Your task to perform on an android device: open app "LiveIn - Share Your Moment" (install if not already installed) Image 0: 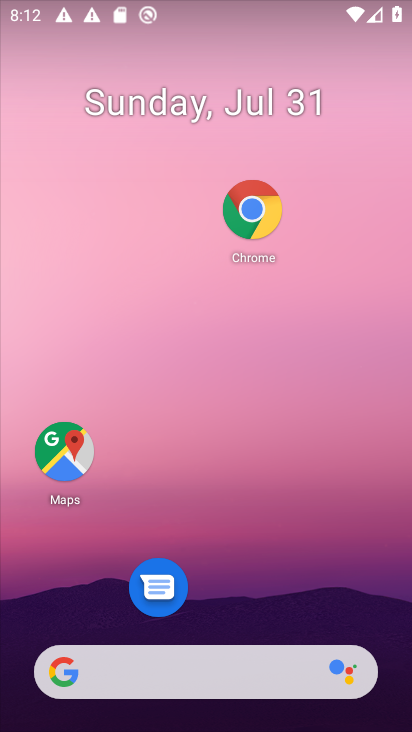
Step 0: drag from (239, 629) to (180, 171)
Your task to perform on an android device: open app "LiveIn - Share Your Moment" (install if not already installed) Image 1: 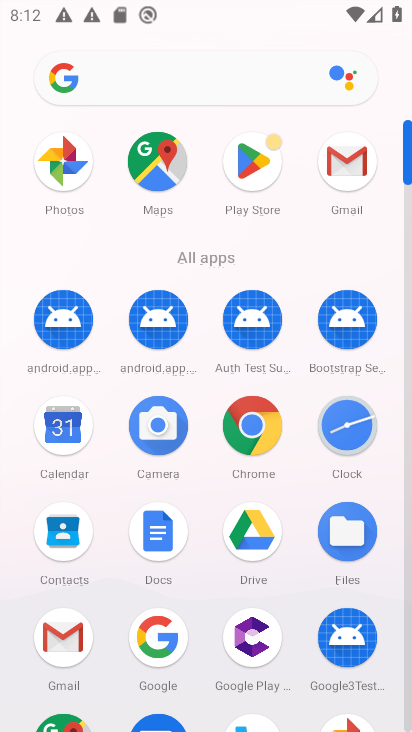
Step 1: drag from (275, 568) to (241, 238)
Your task to perform on an android device: open app "LiveIn - Share Your Moment" (install if not already installed) Image 2: 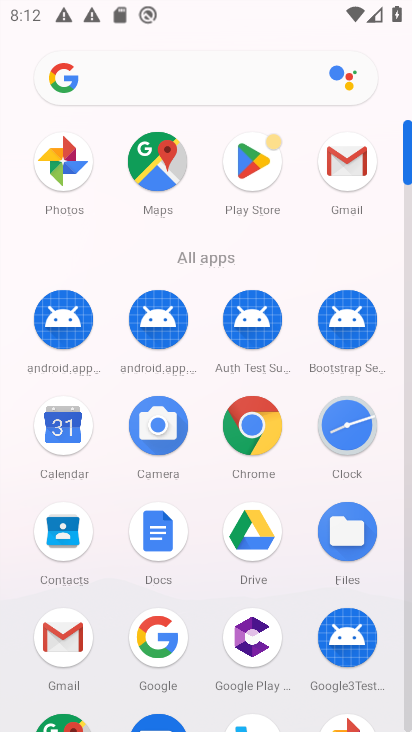
Step 2: click (263, 160)
Your task to perform on an android device: open app "LiveIn - Share Your Moment" (install if not already installed) Image 3: 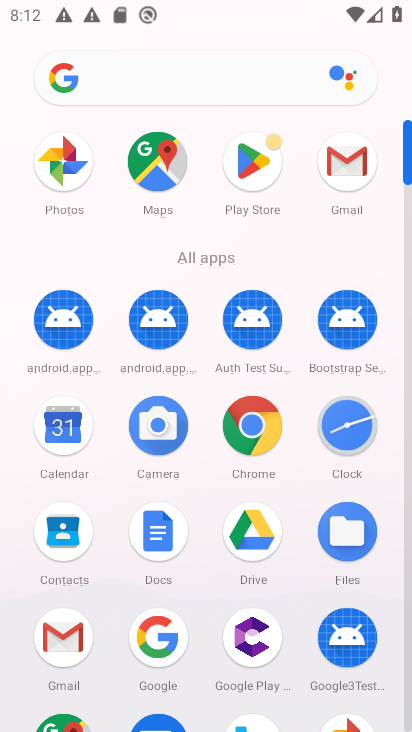
Step 3: click (263, 166)
Your task to perform on an android device: open app "LiveIn - Share Your Moment" (install if not already installed) Image 4: 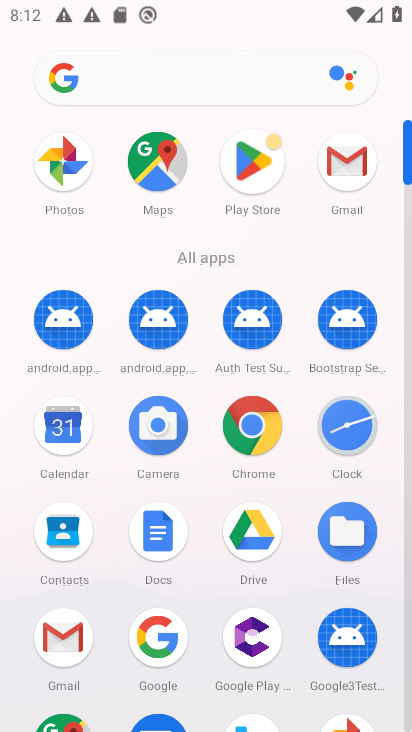
Step 4: click (263, 167)
Your task to perform on an android device: open app "LiveIn - Share Your Moment" (install if not already installed) Image 5: 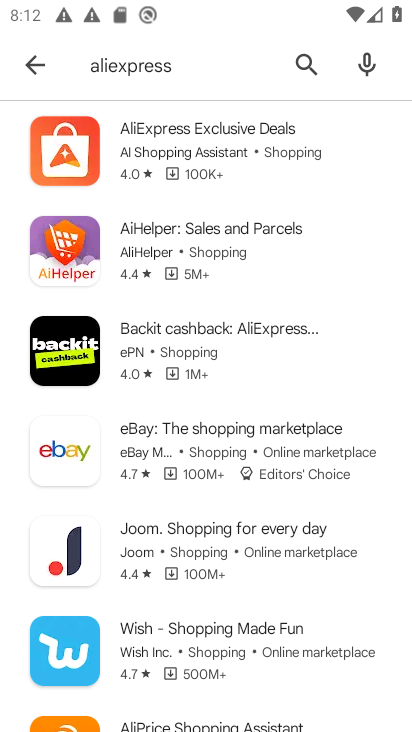
Step 5: click (33, 63)
Your task to perform on an android device: open app "LiveIn - Share Your Moment" (install if not already installed) Image 6: 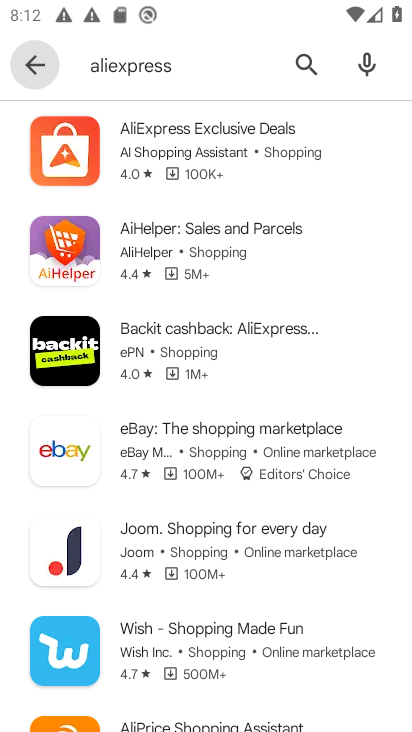
Step 6: click (33, 62)
Your task to perform on an android device: open app "LiveIn - Share Your Moment" (install if not already installed) Image 7: 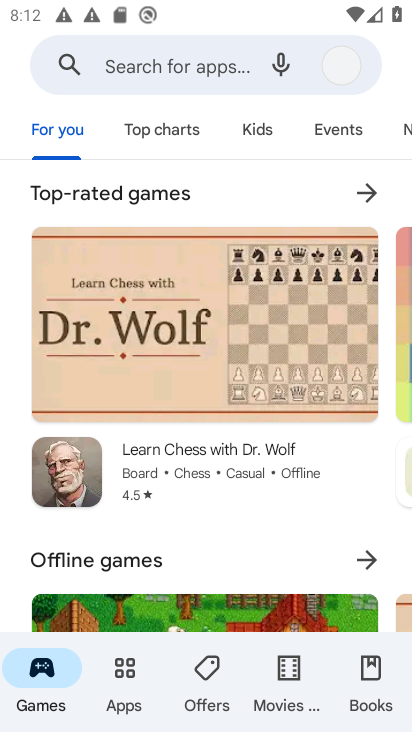
Step 7: click (33, 63)
Your task to perform on an android device: open app "LiveIn - Share Your Moment" (install if not already installed) Image 8: 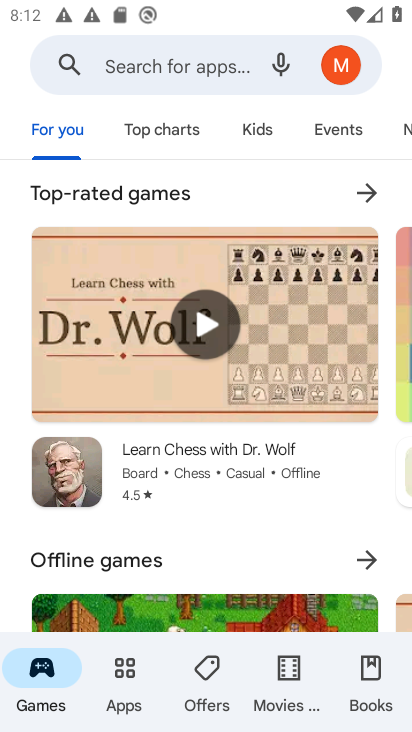
Step 8: click (114, 62)
Your task to perform on an android device: open app "LiveIn - Share Your Moment" (install if not already installed) Image 9: 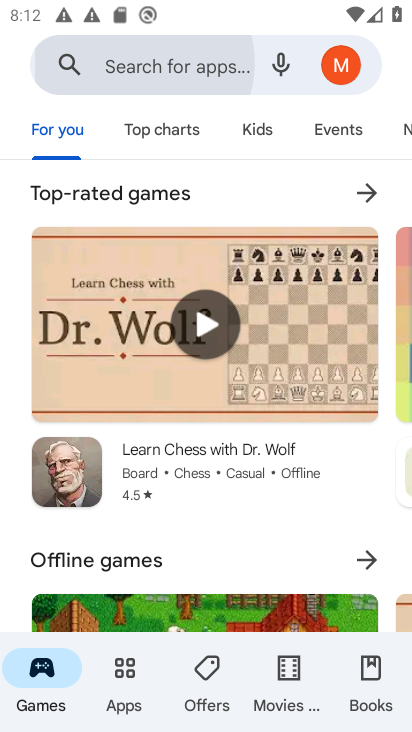
Step 9: click (114, 62)
Your task to perform on an android device: open app "LiveIn - Share Your Moment" (install if not already installed) Image 10: 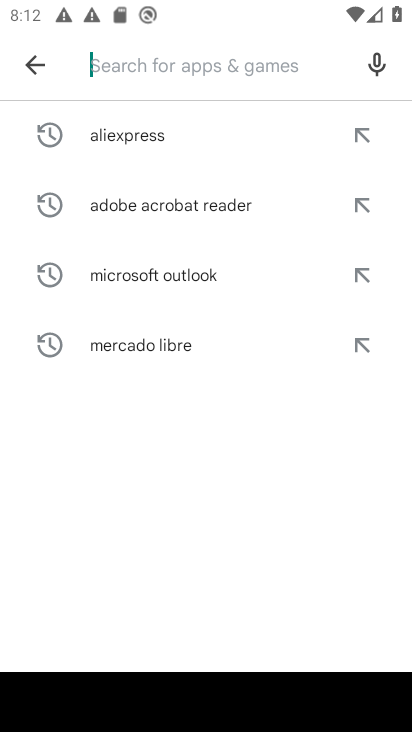
Step 10: click (117, 63)
Your task to perform on an android device: open app "LiveIn - Share Your Moment" (install if not already installed) Image 11: 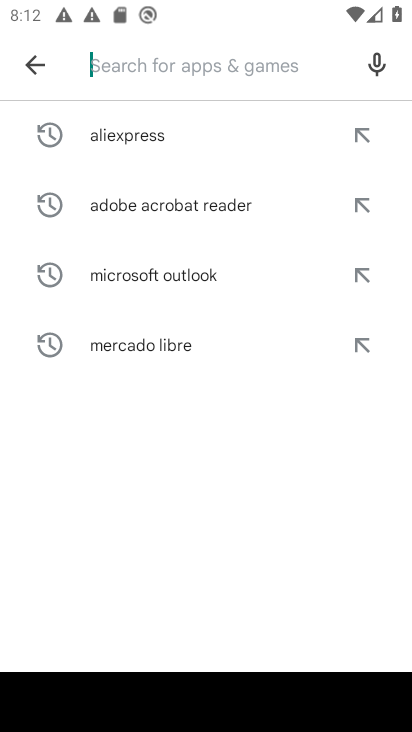
Step 11: type "livein - share your moment "
Your task to perform on an android device: open app "LiveIn - Share Your Moment" (install if not already installed) Image 12: 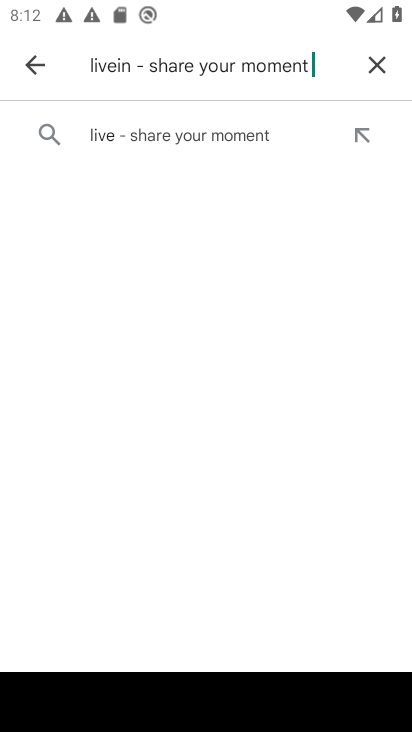
Step 12: click (225, 142)
Your task to perform on an android device: open app "LiveIn - Share Your Moment" (install if not already installed) Image 13: 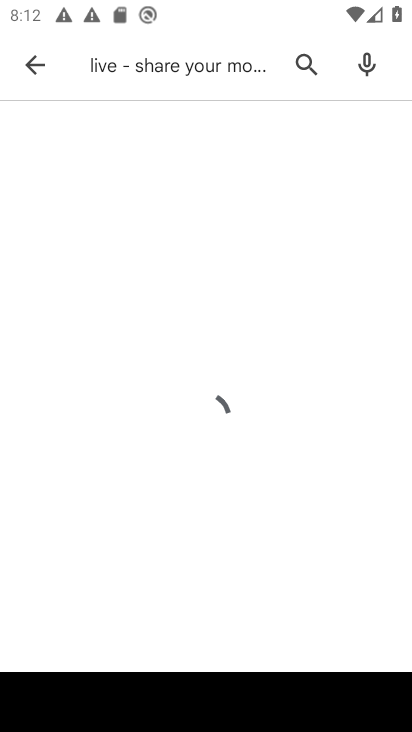
Step 13: click (202, 142)
Your task to perform on an android device: open app "LiveIn - Share Your Moment" (install if not already installed) Image 14: 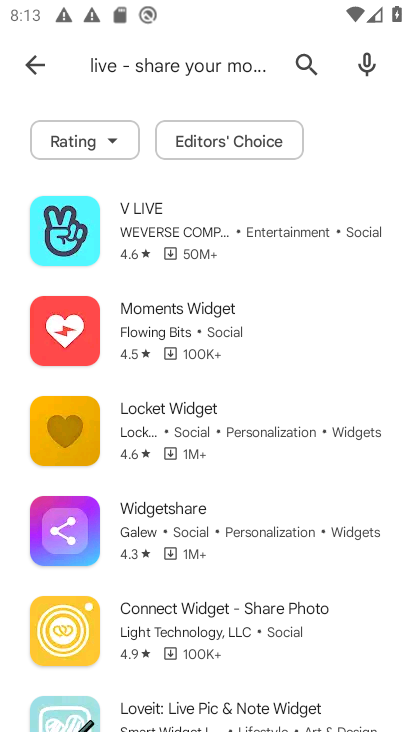
Step 14: drag from (159, 512) to (124, 200)
Your task to perform on an android device: open app "LiveIn - Share Your Moment" (install if not already installed) Image 15: 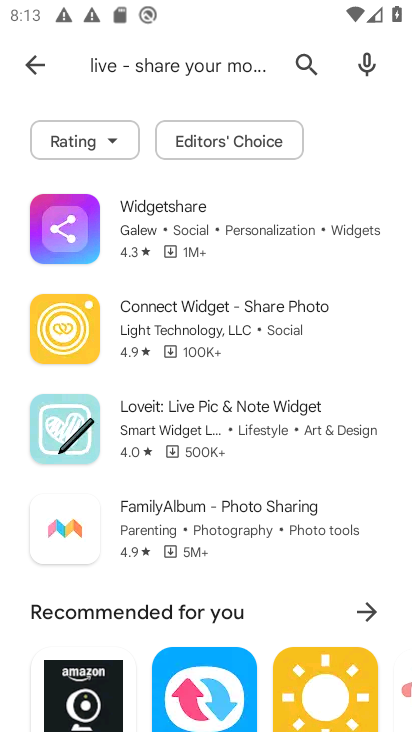
Step 15: drag from (170, 628) to (196, 235)
Your task to perform on an android device: open app "LiveIn - Share Your Moment" (install if not already installed) Image 16: 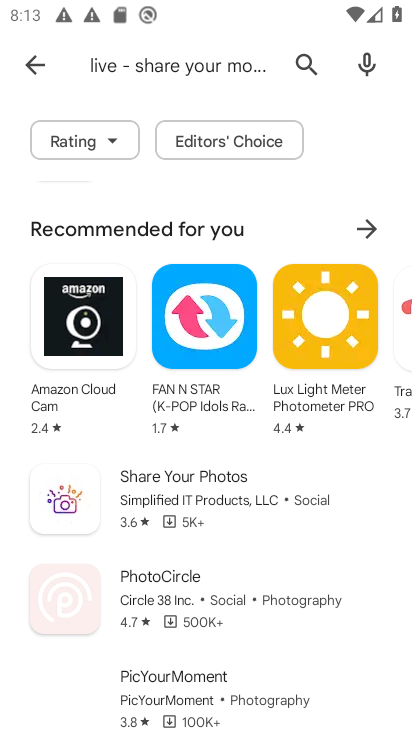
Step 16: drag from (208, 623) to (210, 264)
Your task to perform on an android device: open app "LiveIn - Share Your Moment" (install if not already installed) Image 17: 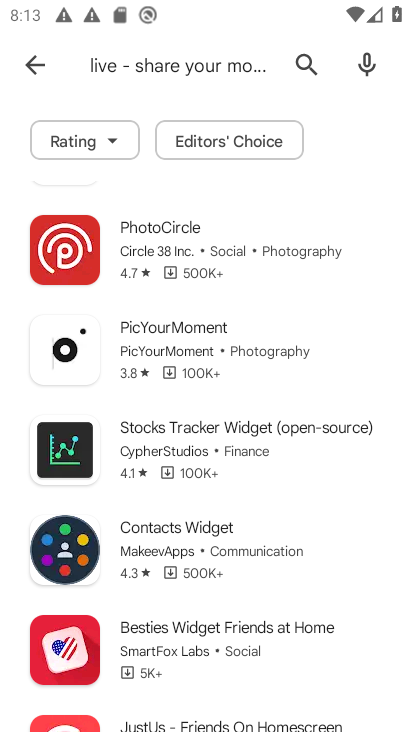
Step 17: drag from (208, 645) to (226, 725)
Your task to perform on an android device: open app "LiveIn - Share Your Moment" (install if not already installed) Image 18: 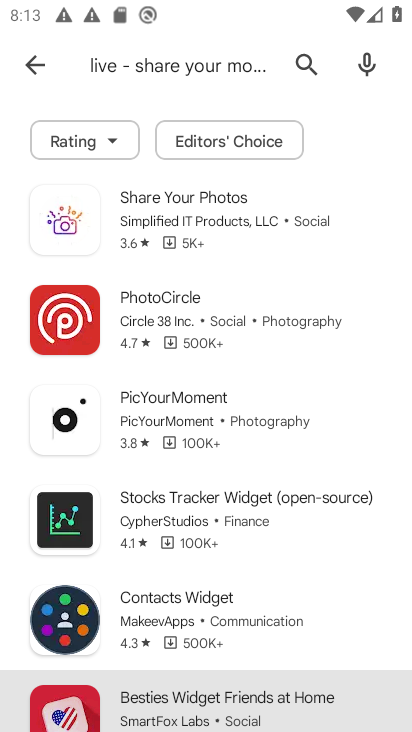
Step 18: drag from (181, 272) to (231, 608)
Your task to perform on an android device: open app "LiveIn - Share Your Moment" (install if not already installed) Image 19: 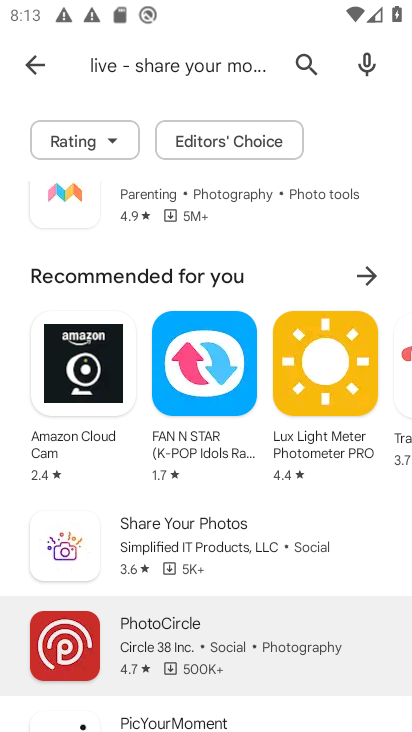
Step 19: drag from (196, 369) to (247, 687)
Your task to perform on an android device: open app "LiveIn - Share Your Moment" (install if not already installed) Image 20: 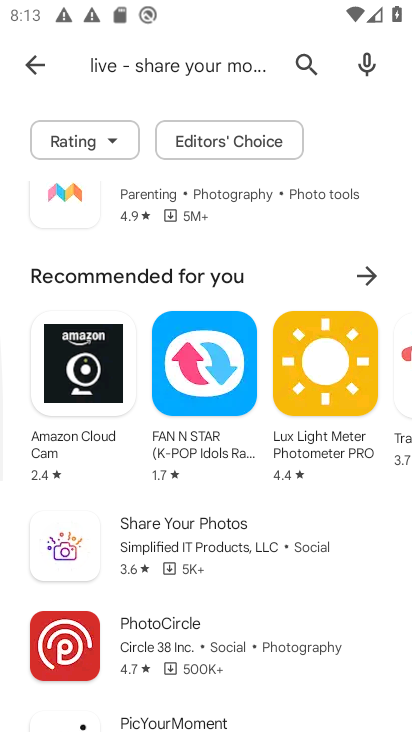
Step 20: drag from (186, 324) to (206, 683)
Your task to perform on an android device: open app "LiveIn - Share Your Moment" (install if not already installed) Image 21: 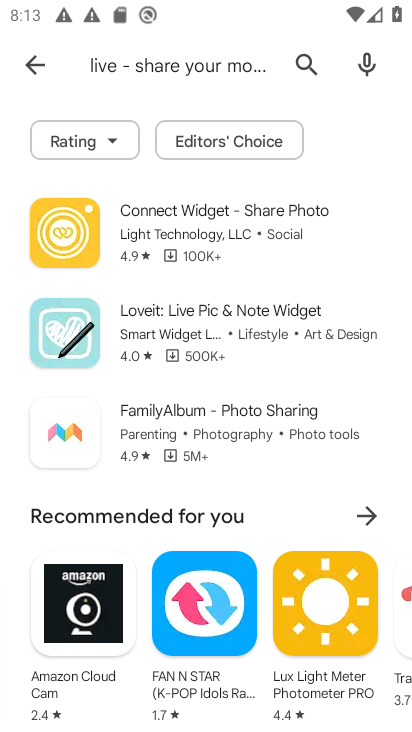
Step 21: drag from (163, 305) to (189, 627)
Your task to perform on an android device: open app "LiveIn - Share Your Moment" (install if not already installed) Image 22: 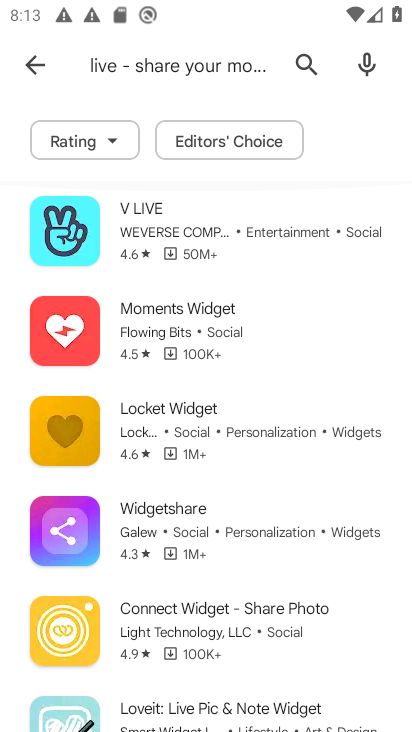
Step 22: click (163, 681)
Your task to perform on an android device: open app "LiveIn - Share Your Moment" (install if not already installed) Image 23: 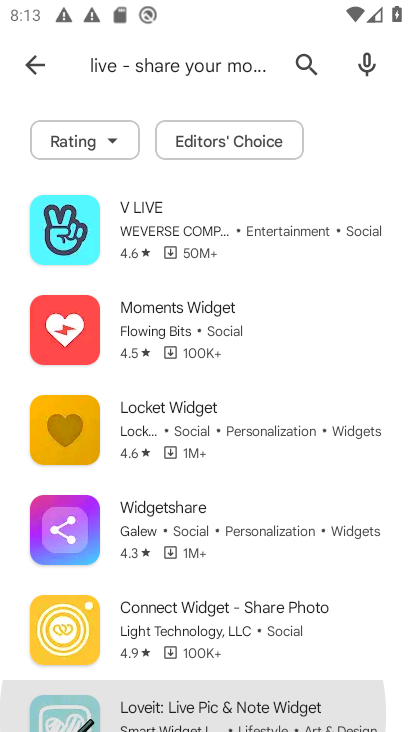
Step 23: drag from (176, 585) to (147, 649)
Your task to perform on an android device: open app "LiveIn - Share Your Moment" (install if not already installed) Image 24: 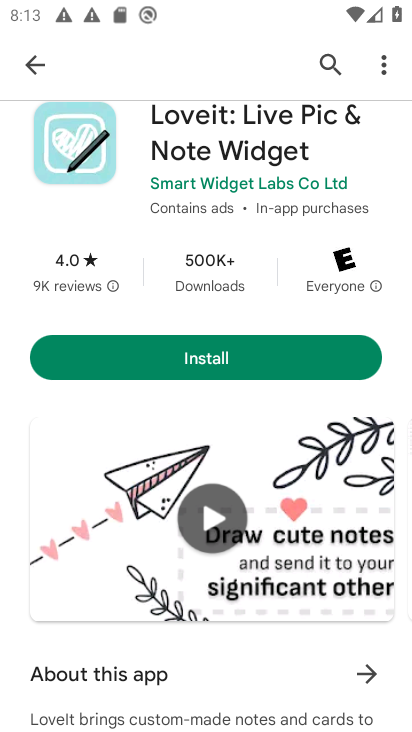
Step 24: click (34, 53)
Your task to perform on an android device: open app "LiveIn - Share Your Moment" (install if not already installed) Image 25: 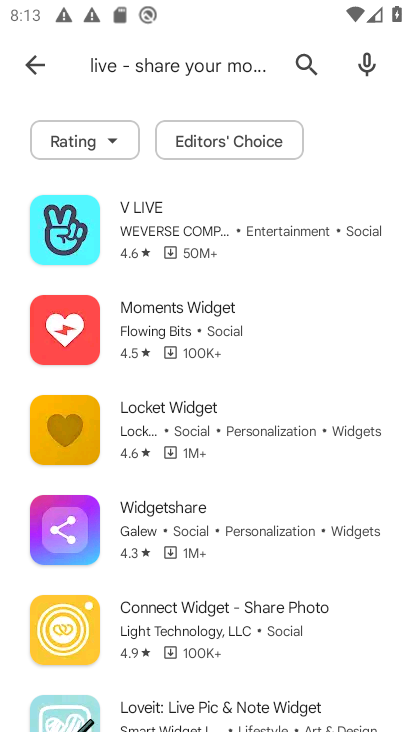
Step 25: task complete